Your task to perform on an android device: Open Youtube and go to the subscriptions tab Image 0: 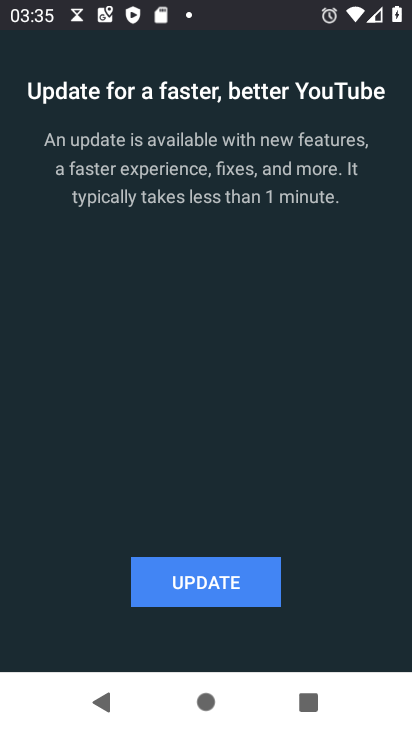
Step 0: press back button
Your task to perform on an android device: Open Youtube and go to the subscriptions tab Image 1: 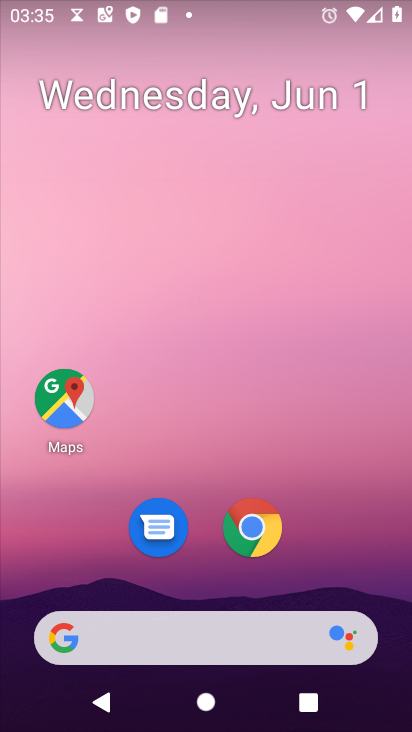
Step 1: drag from (340, 533) to (178, 101)
Your task to perform on an android device: Open Youtube and go to the subscriptions tab Image 2: 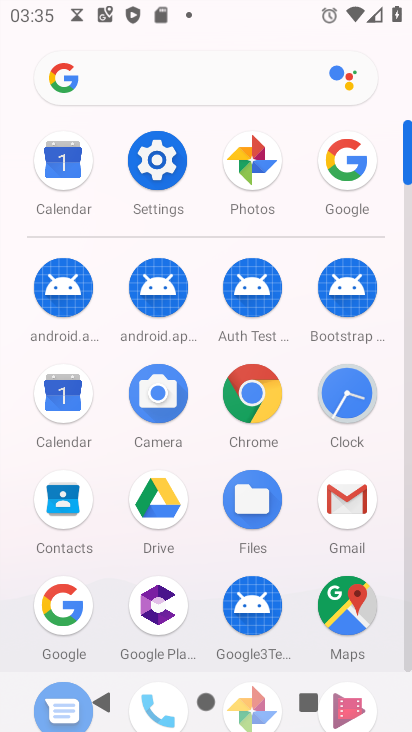
Step 2: drag from (300, 501) to (284, 235)
Your task to perform on an android device: Open Youtube and go to the subscriptions tab Image 3: 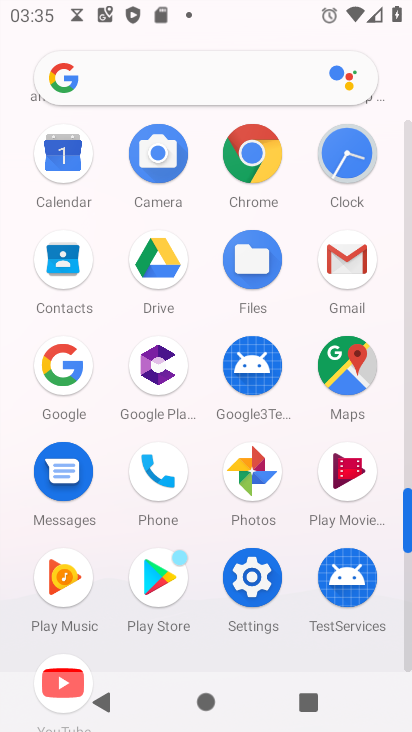
Step 3: drag from (135, 651) to (132, 473)
Your task to perform on an android device: Open Youtube and go to the subscriptions tab Image 4: 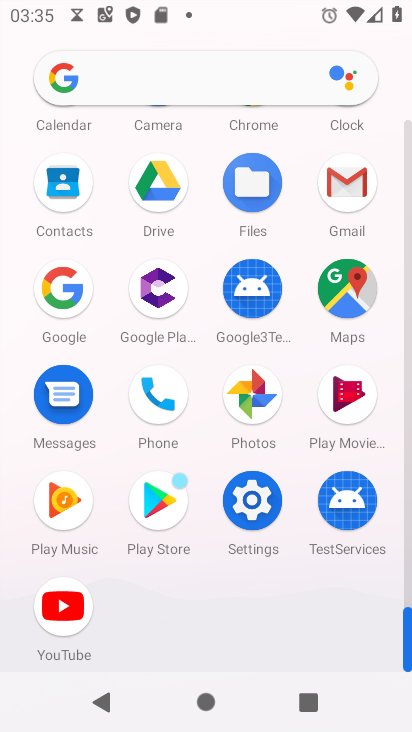
Step 4: click (59, 673)
Your task to perform on an android device: Open Youtube and go to the subscriptions tab Image 5: 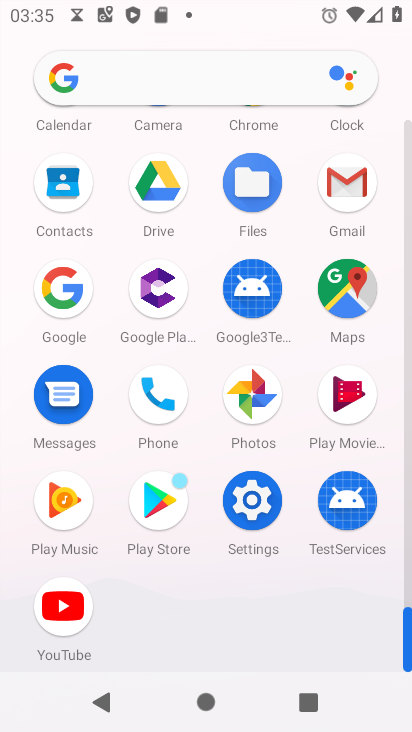
Step 5: click (66, 612)
Your task to perform on an android device: Open Youtube and go to the subscriptions tab Image 6: 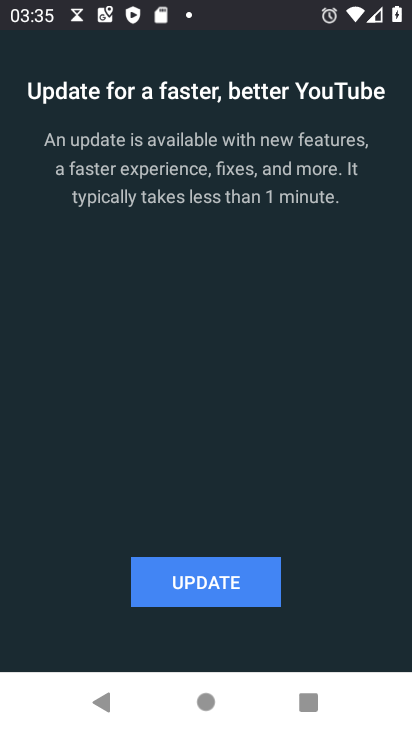
Step 6: click (212, 579)
Your task to perform on an android device: Open Youtube and go to the subscriptions tab Image 7: 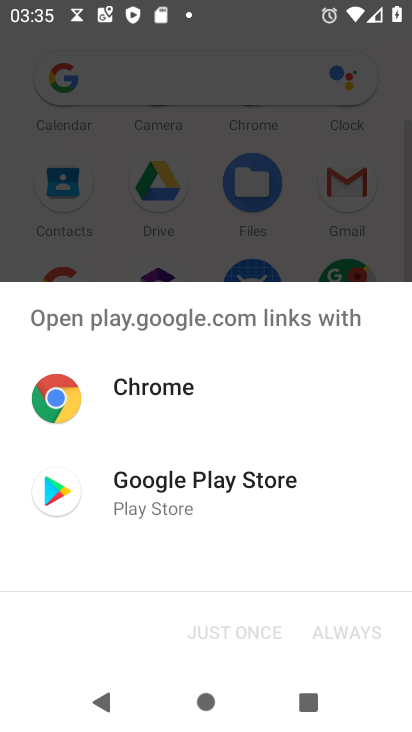
Step 7: click (191, 470)
Your task to perform on an android device: Open Youtube and go to the subscriptions tab Image 8: 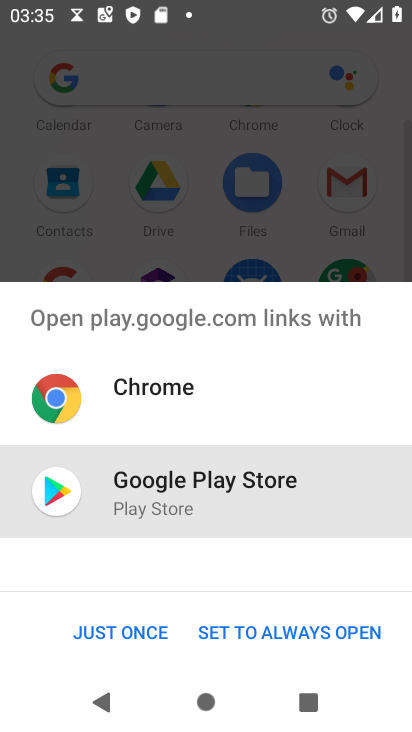
Step 8: click (141, 634)
Your task to perform on an android device: Open Youtube and go to the subscriptions tab Image 9: 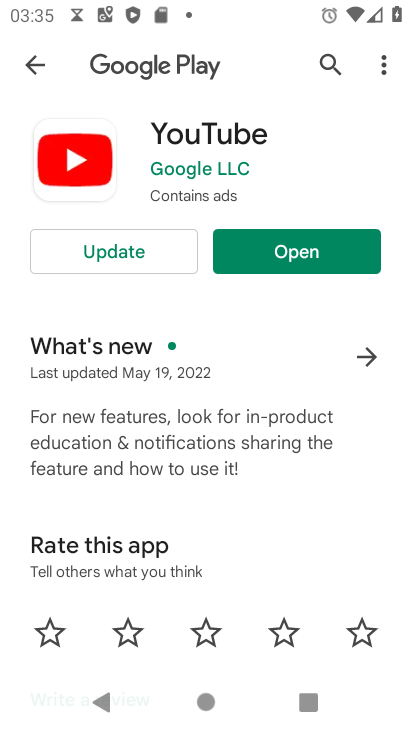
Step 9: click (123, 256)
Your task to perform on an android device: Open Youtube and go to the subscriptions tab Image 10: 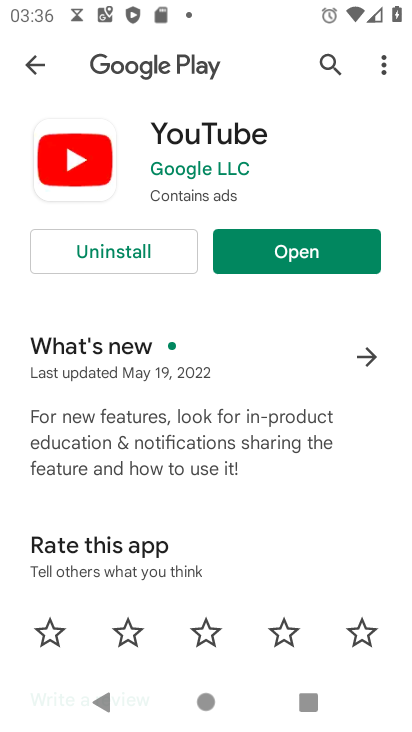
Step 10: click (284, 260)
Your task to perform on an android device: Open Youtube and go to the subscriptions tab Image 11: 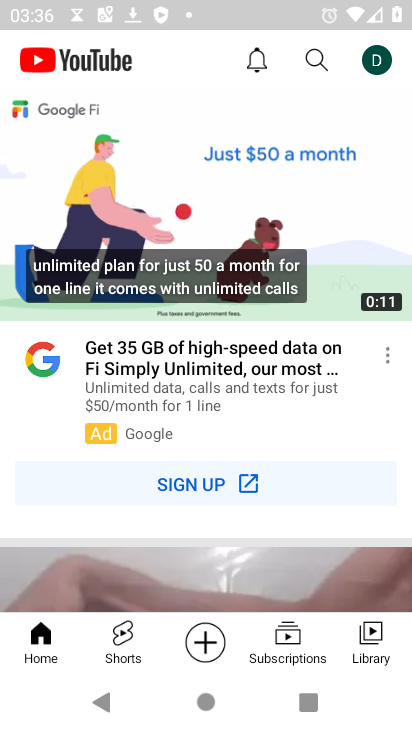
Step 11: click (287, 639)
Your task to perform on an android device: Open Youtube and go to the subscriptions tab Image 12: 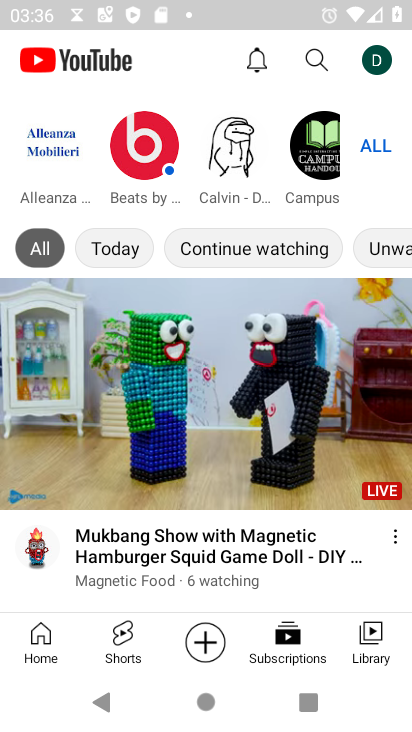
Step 12: task complete